Your task to perform on an android device: Search for vegetarian restaurants on Maps Image 0: 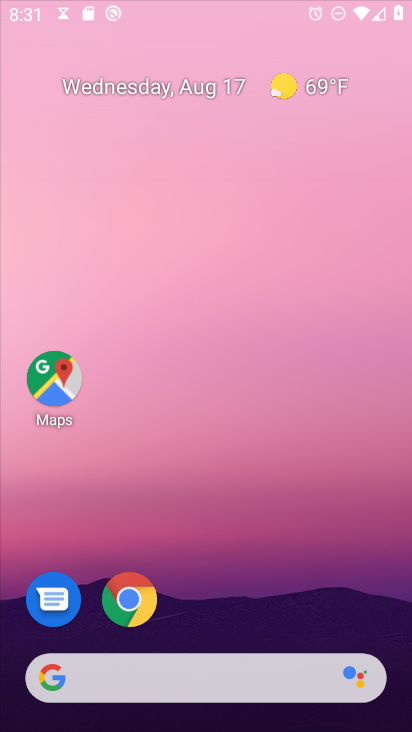
Step 0: press home button
Your task to perform on an android device: Search for vegetarian restaurants on Maps Image 1: 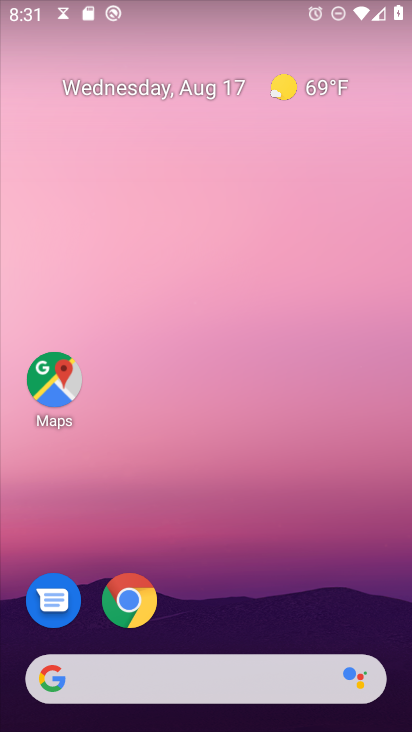
Step 1: click (54, 368)
Your task to perform on an android device: Search for vegetarian restaurants on Maps Image 2: 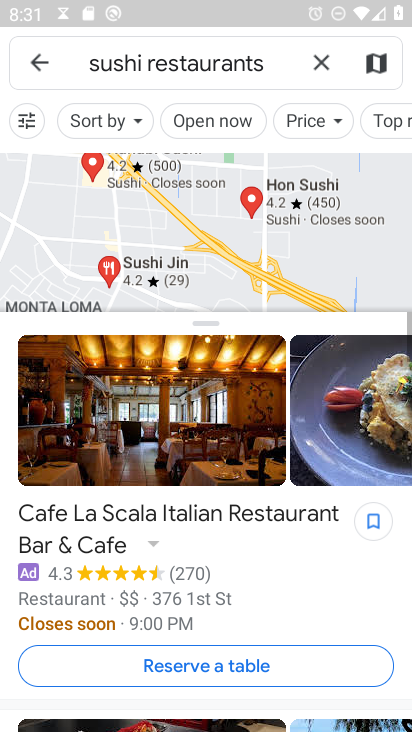
Step 2: click (321, 66)
Your task to perform on an android device: Search for vegetarian restaurants on Maps Image 3: 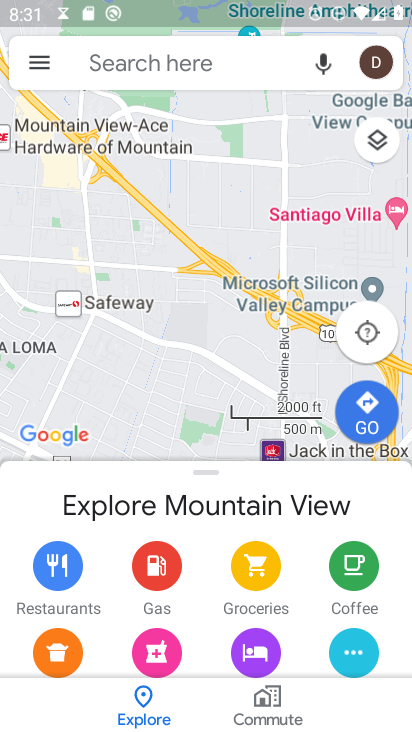
Step 3: click (172, 67)
Your task to perform on an android device: Search for vegetarian restaurants on Maps Image 4: 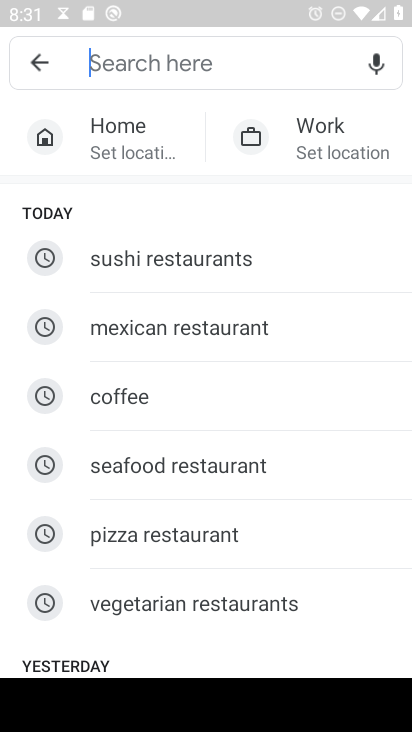
Step 4: click (150, 605)
Your task to perform on an android device: Search for vegetarian restaurants on Maps Image 5: 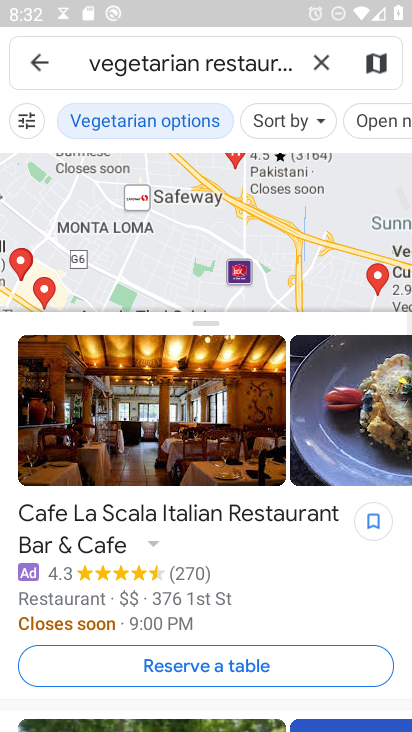
Step 5: task complete